Your task to perform on an android device: toggle sleep mode Image 0: 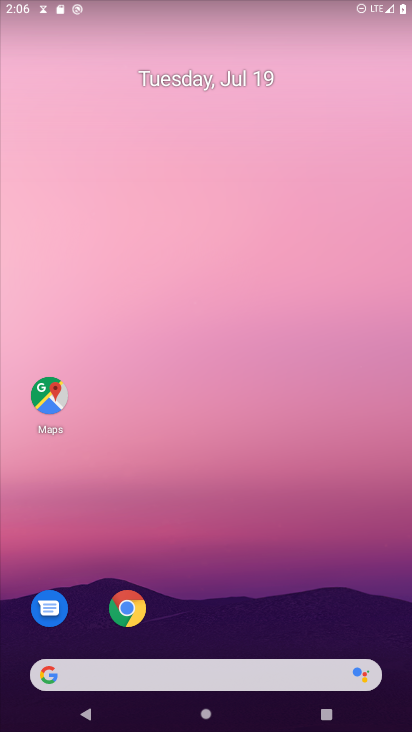
Step 0: drag from (243, 563) to (214, 13)
Your task to perform on an android device: toggle sleep mode Image 1: 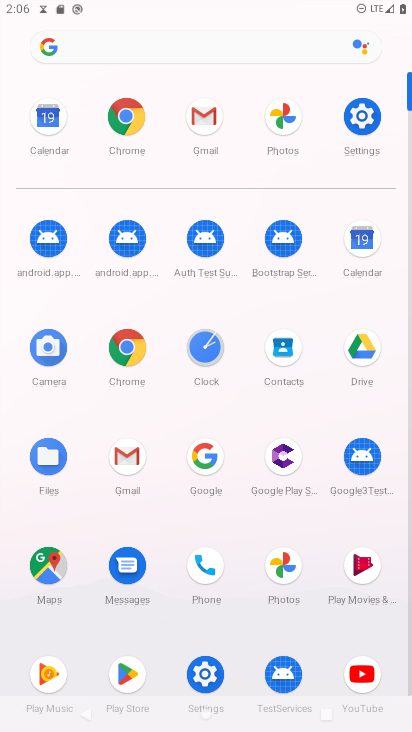
Step 1: click (358, 130)
Your task to perform on an android device: toggle sleep mode Image 2: 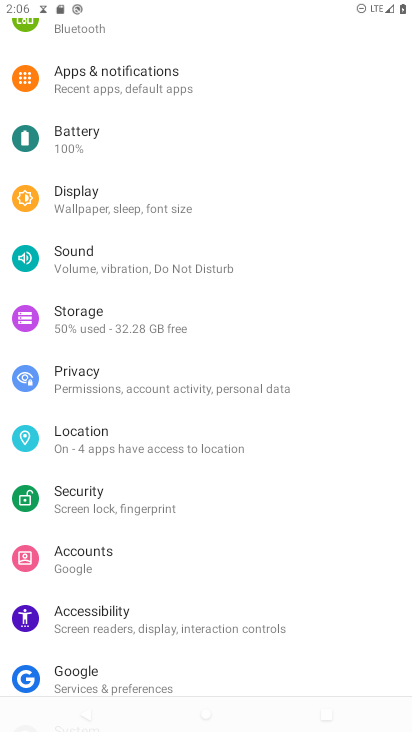
Step 2: drag from (131, 130) to (146, 441)
Your task to perform on an android device: toggle sleep mode Image 3: 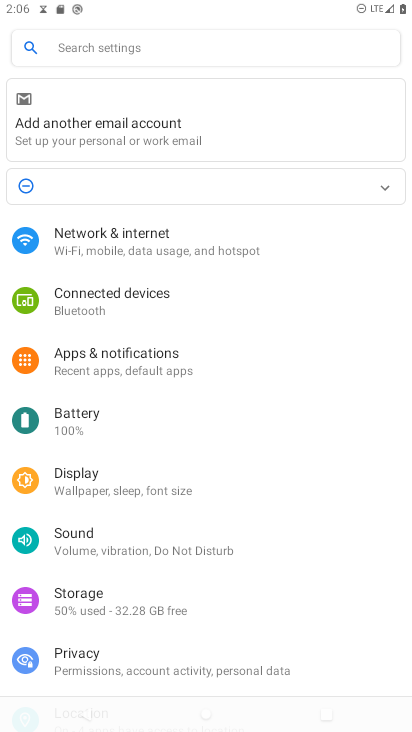
Step 3: click (149, 487)
Your task to perform on an android device: toggle sleep mode Image 4: 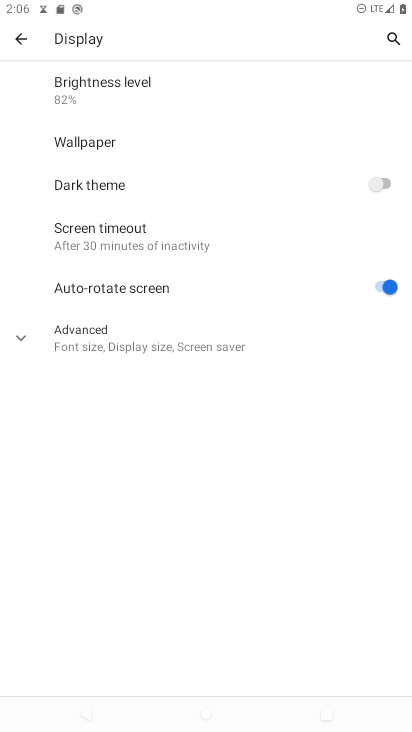
Step 4: task complete